Your task to perform on an android device: Search for vegetarian restaurants on Maps Image 0: 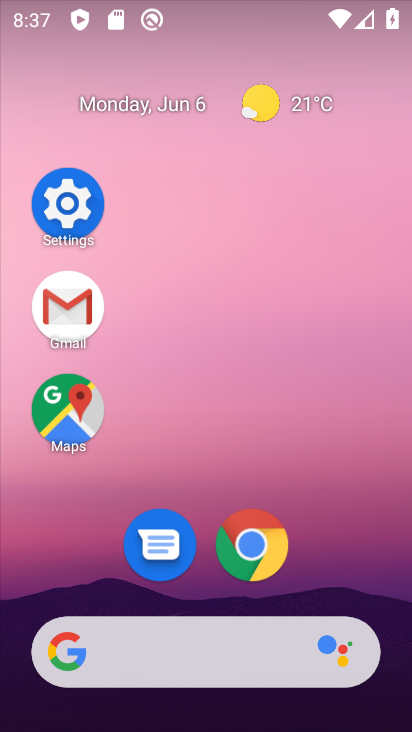
Step 0: click (85, 411)
Your task to perform on an android device: Search for vegetarian restaurants on Maps Image 1: 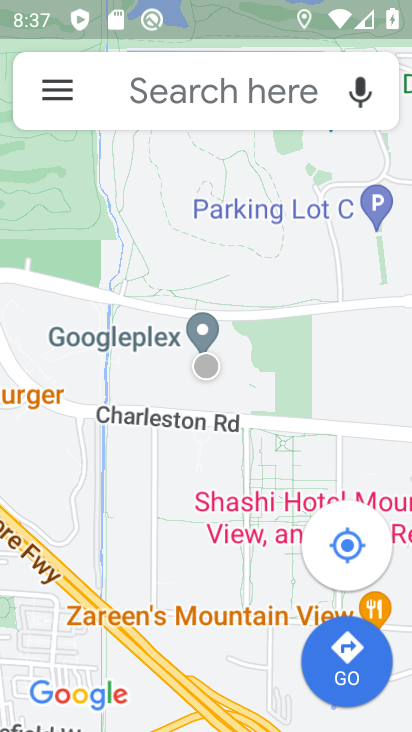
Step 1: click (207, 92)
Your task to perform on an android device: Search for vegetarian restaurants on Maps Image 2: 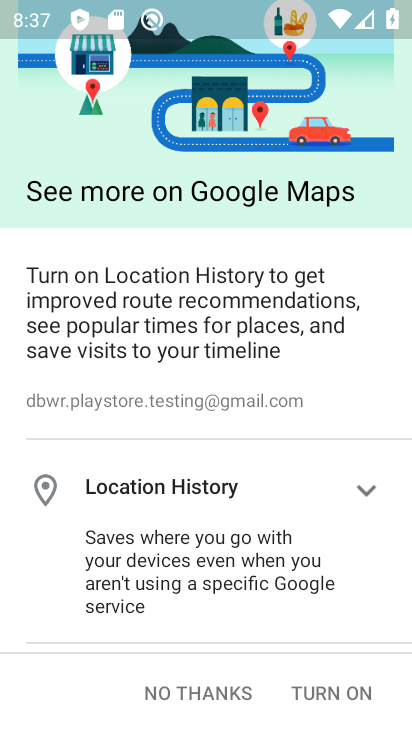
Step 2: click (364, 691)
Your task to perform on an android device: Search for vegetarian restaurants on Maps Image 3: 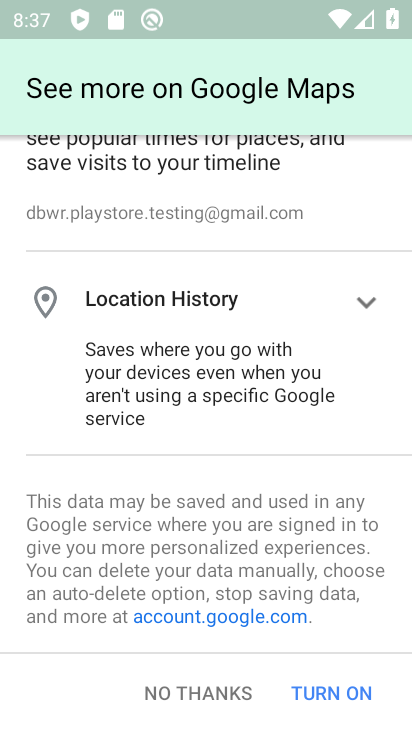
Step 3: click (364, 698)
Your task to perform on an android device: Search for vegetarian restaurants on Maps Image 4: 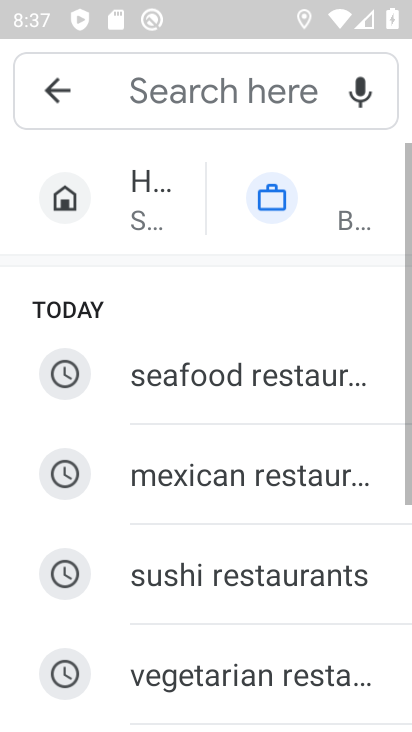
Step 4: click (240, 84)
Your task to perform on an android device: Search for vegetarian restaurants on Maps Image 5: 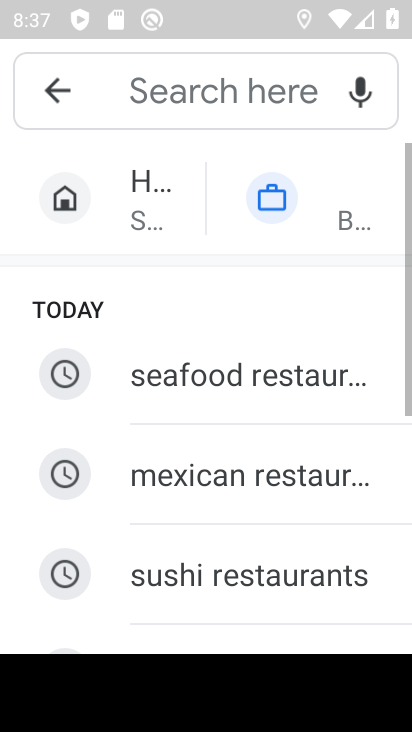
Step 5: drag from (227, 440) to (239, 233)
Your task to perform on an android device: Search for vegetarian restaurants on Maps Image 6: 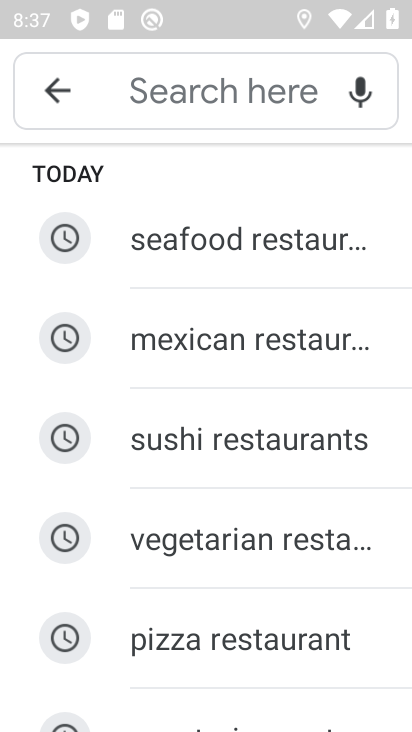
Step 6: click (277, 564)
Your task to perform on an android device: Search for vegetarian restaurants on Maps Image 7: 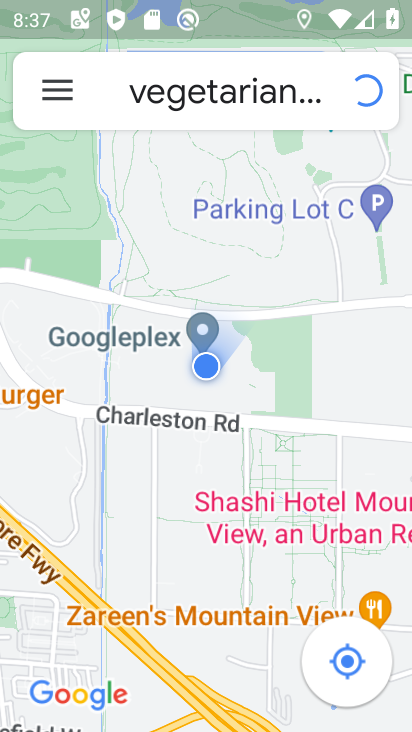
Step 7: task complete